Your task to perform on an android device: Open the calendar app, open the side menu, and click the "Day" option Image 0: 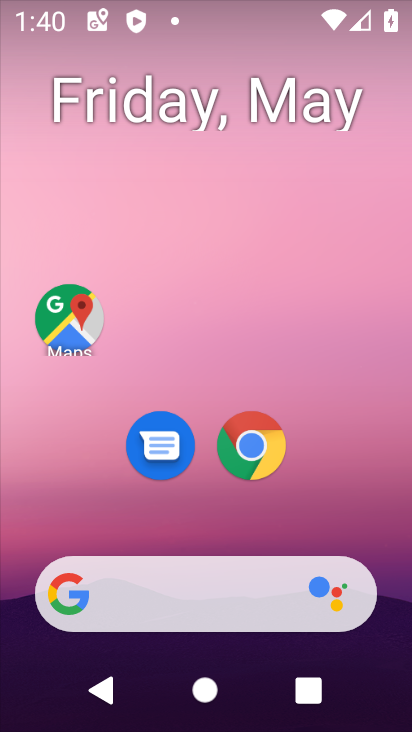
Step 0: drag from (375, 538) to (359, 221)
Your task to perform on an android device: Open the calendar app, open the side menu, and click the "Day" option Image 1: 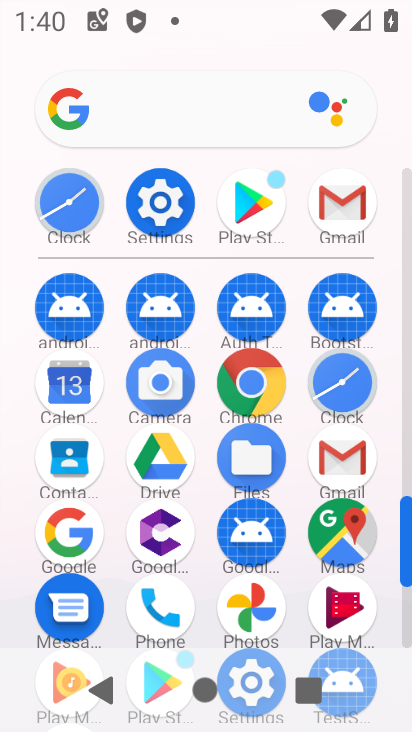
Step 1: click (64, 383)
Your task to perform on an android device: Open the calendar app, open the side menu, and click the "Day" option Image 2: 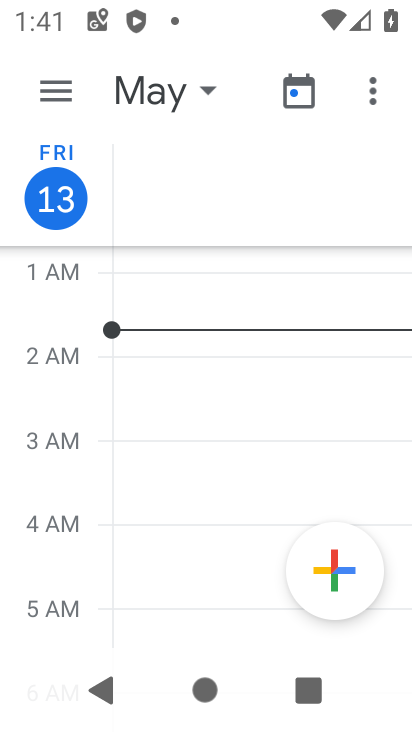
Step 2: click (70, 95)
Your task to perform on an android device: Open the calendar app, open the side menu, and click the "Day" option Image 3: 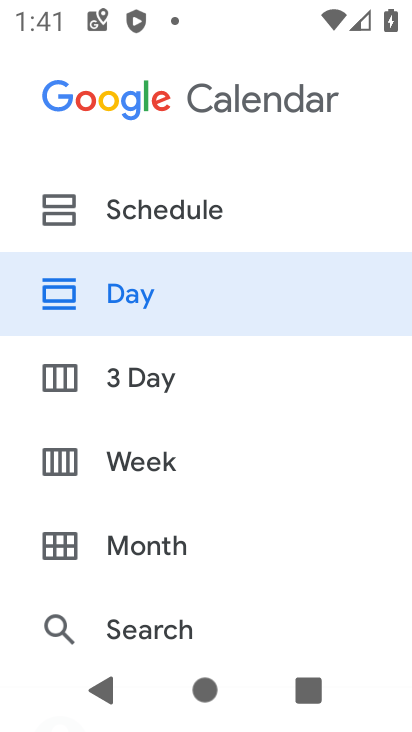
Step 3: click (140, 312)
Your task to perform on an android device: Open the calendar app, open the side menu, and click the "Day" option Image 4: 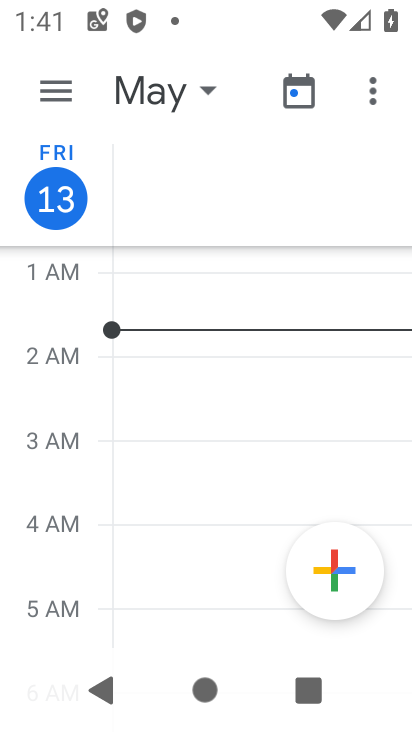
Step 4: task complete